Your task to perform on an android device: Search for dining room chairs on Crate & Barrel Image 0: 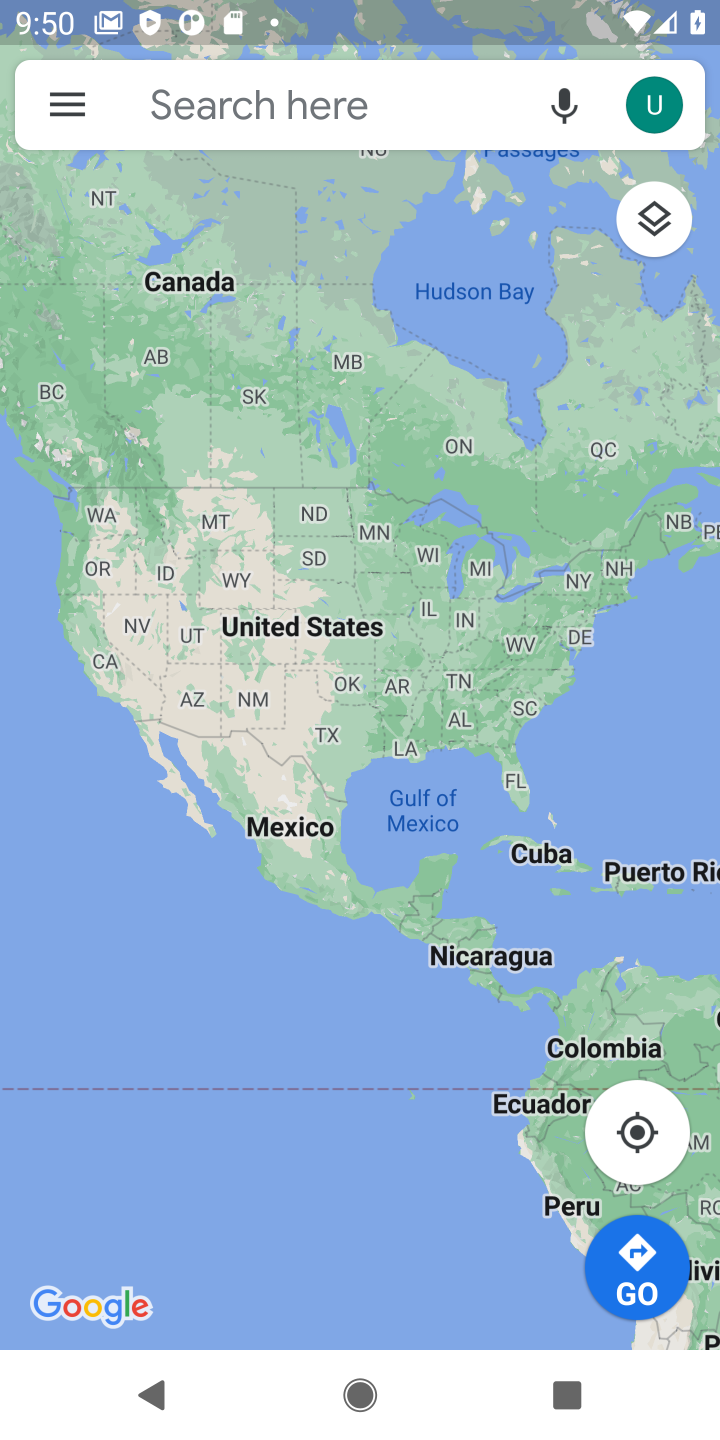
Step 0: press home button
Your task to perform on an android device: Search for dining room chairs on Crate & Barrel Image 1: 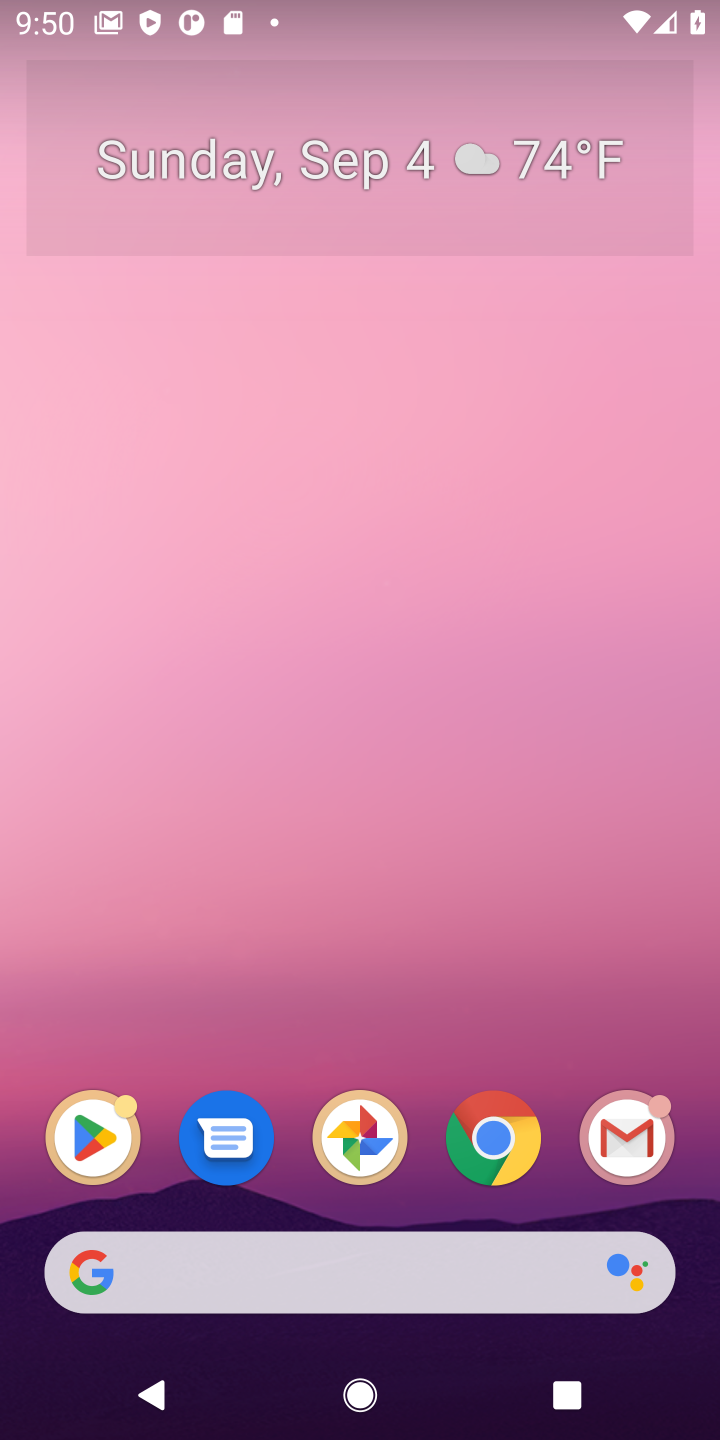
Step 1: click (499, 1137)
Your task to perform on an android device: Search for dining room chairs on Crate & Barrel Image 2: 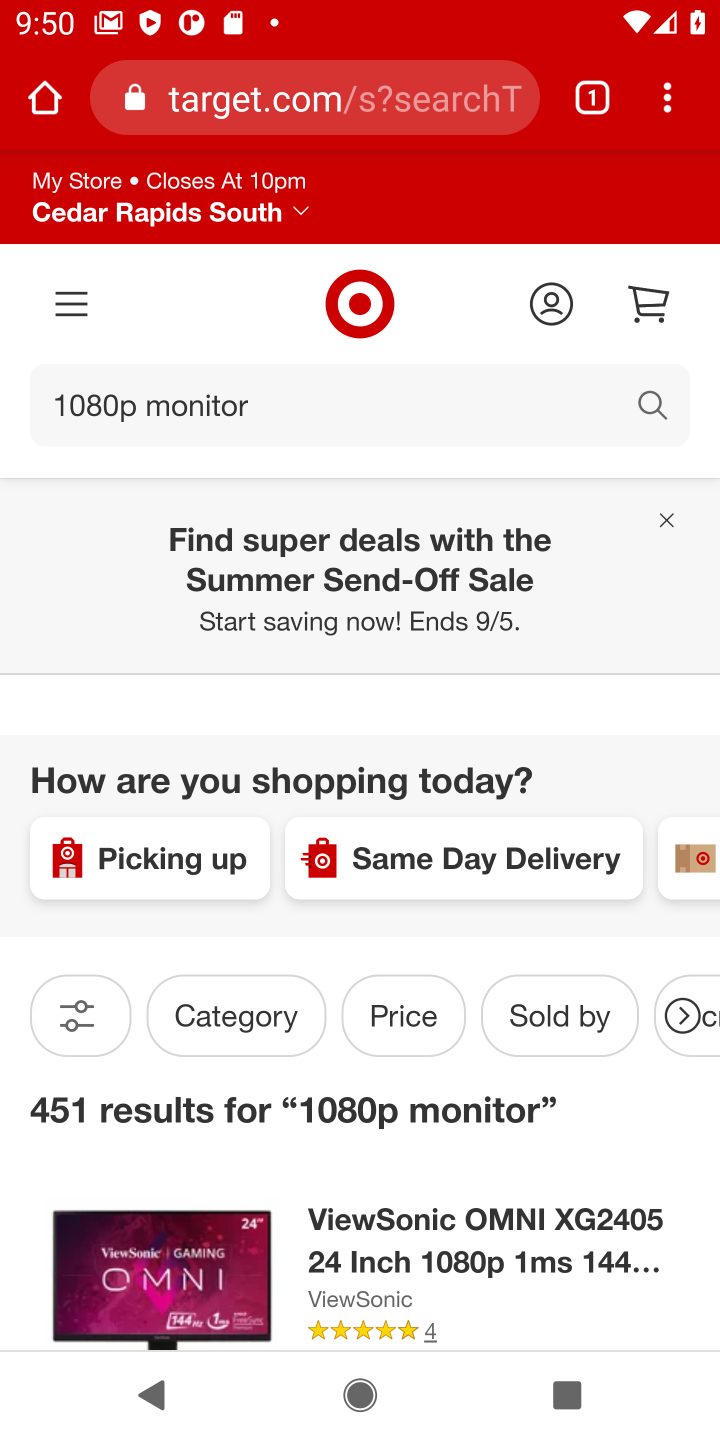
Step 2: click (450, 103)
Your task to perform on an android device: Search for dining room chairs on Crate & Barrel Image 3: 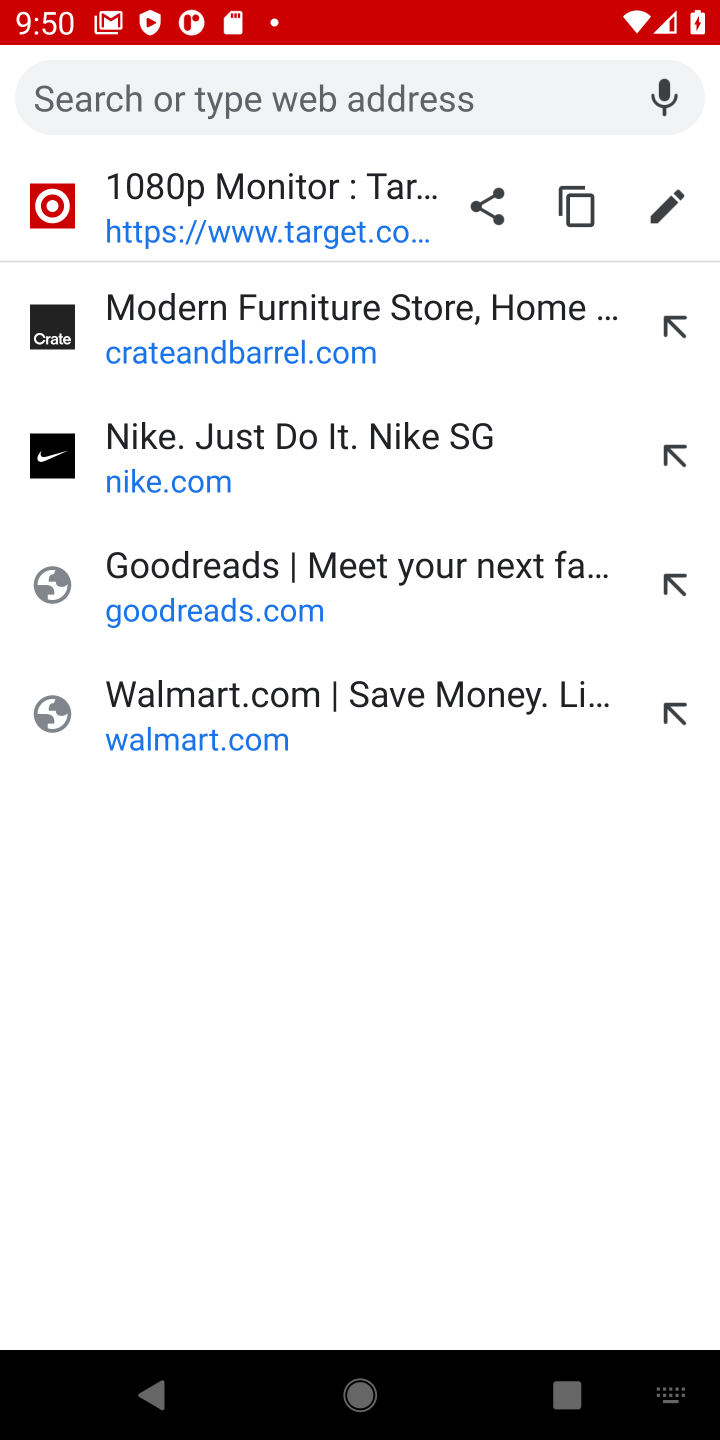
Step 3: type "crate and barrel"
Your task to perform on an android device: Search for dining room chairs on Crate & Barrel Image 4: 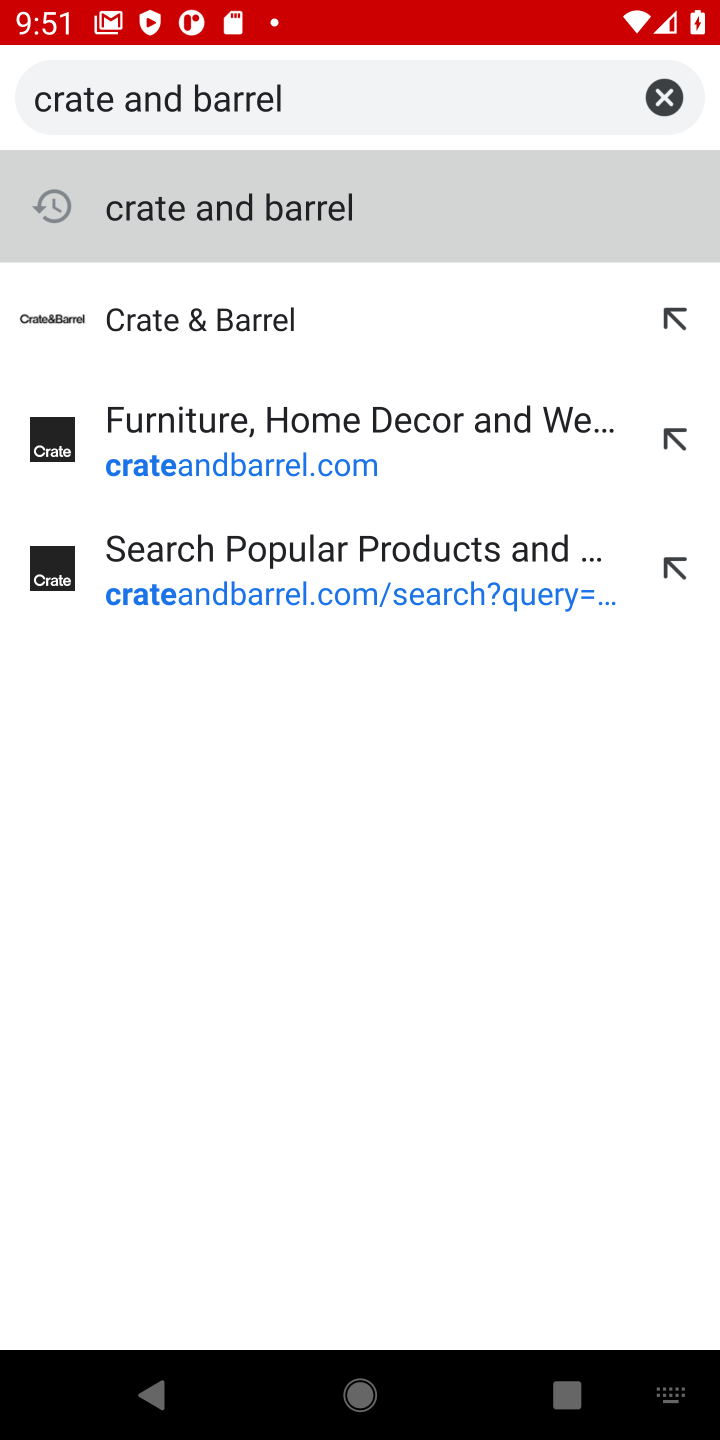
Step 4: click (307, 448)
Your task to perform on an android device: Search for dining room chairs on Crate & Barrel Image 5: 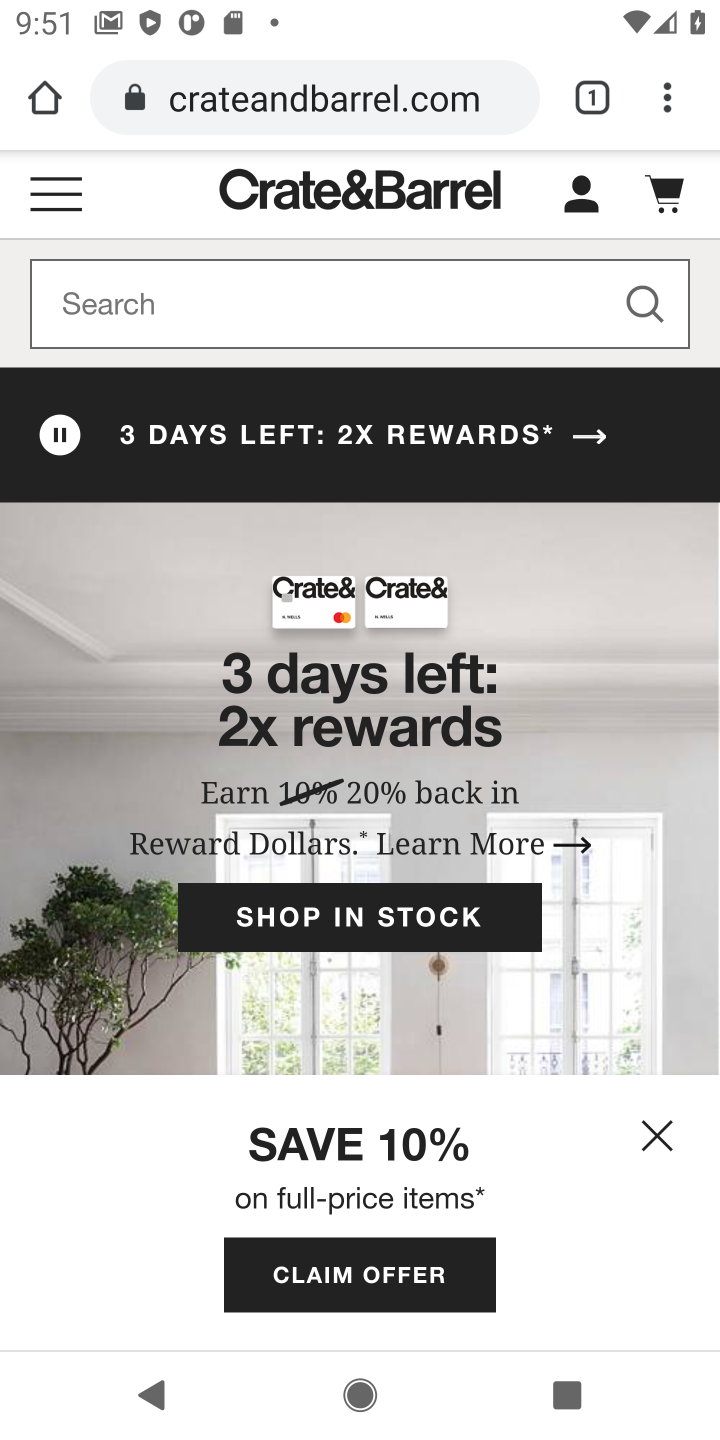
Step 5: click (477, 297)
Your task to perform on an android device: Search for dining room chairs on Crate & Barrel Image 6: 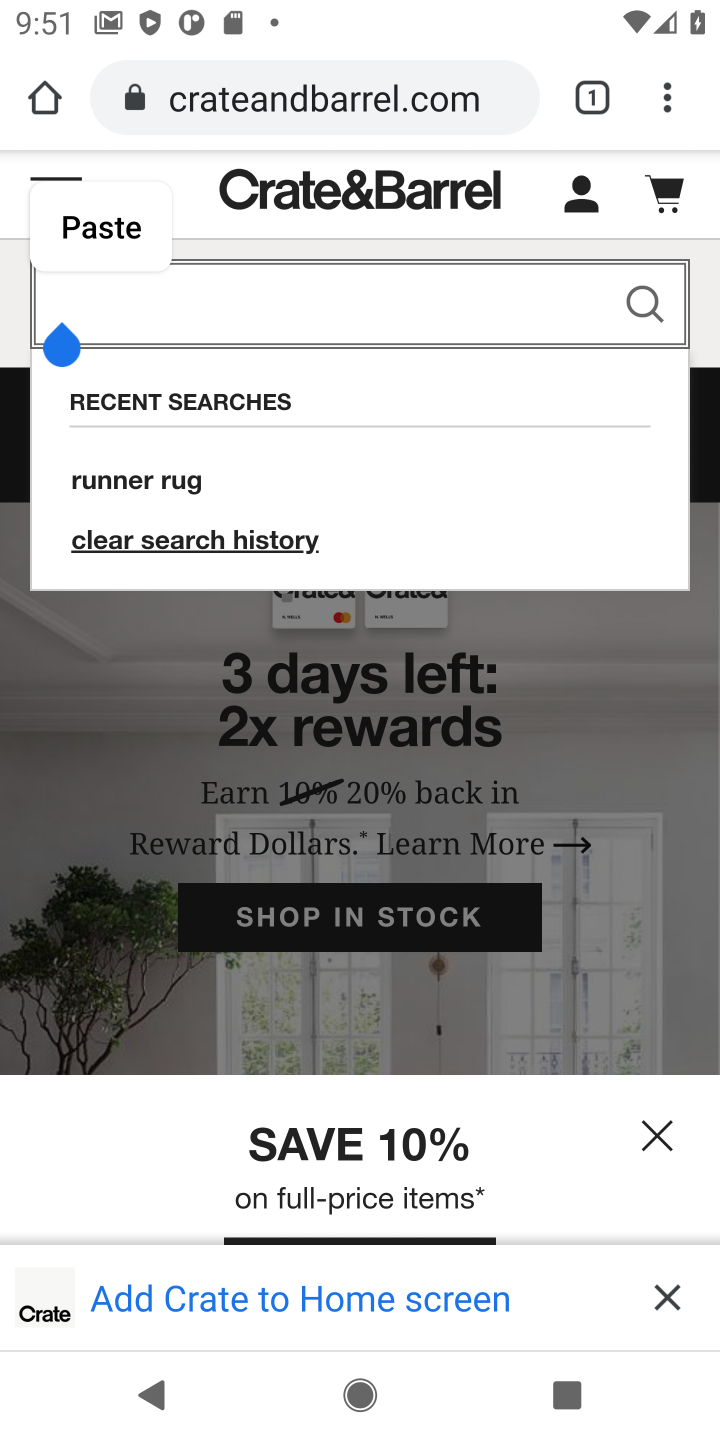
Step 6: type "dining room chairs"
Your task to perform on an android device: Search for dining room chairs on Crate & Barrel Image 7: 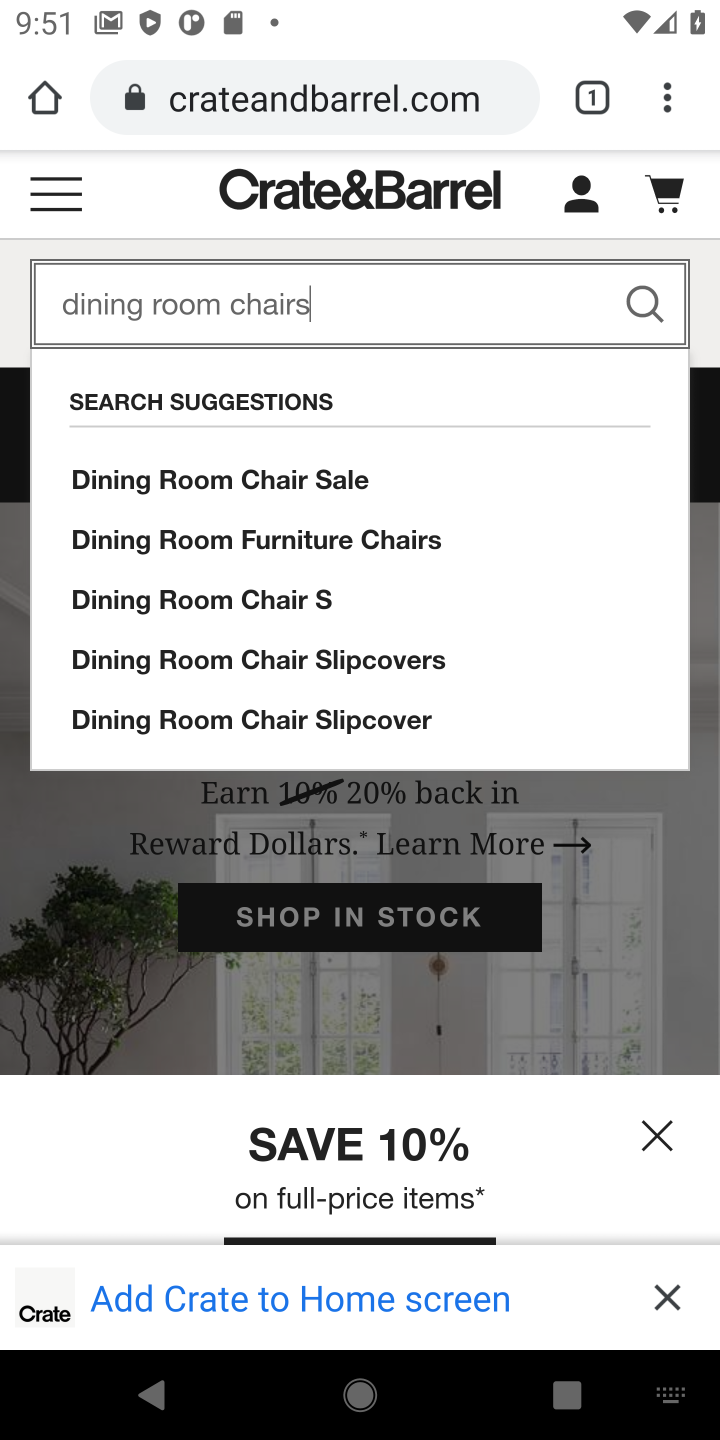
Step 7: press enter
Your task to perform on an android device: Search for dining room chairs on Crate & Barrel Image 8: 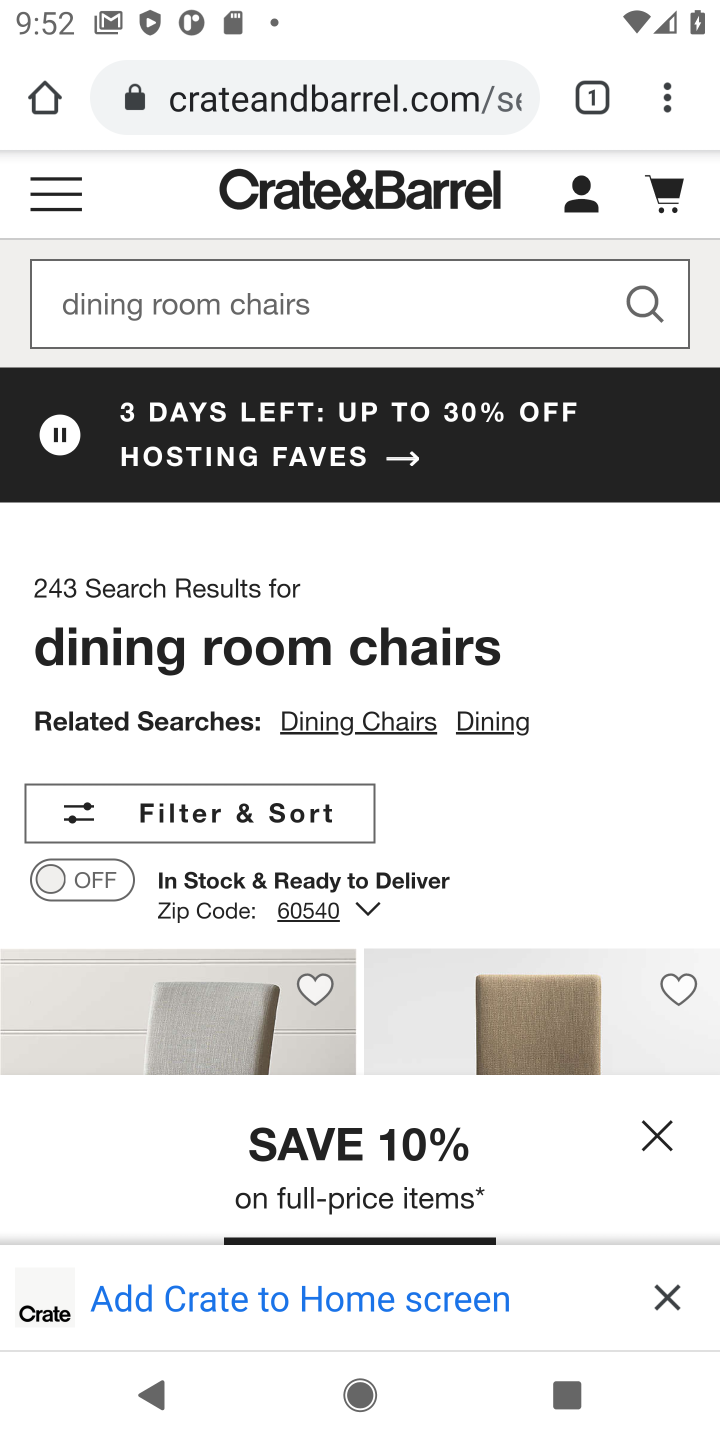
Step 8: task complete